Your task to perform on an android device: Search for sushi restaurants on Maps Image 0: 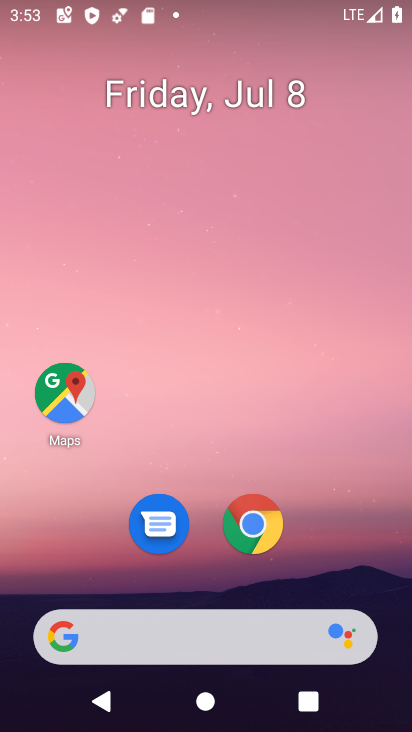
Step 0: drag from (314, 529) to (349, 89)
Your task to perform on an android device: Search for sushi restaurants on Maps Image 1: 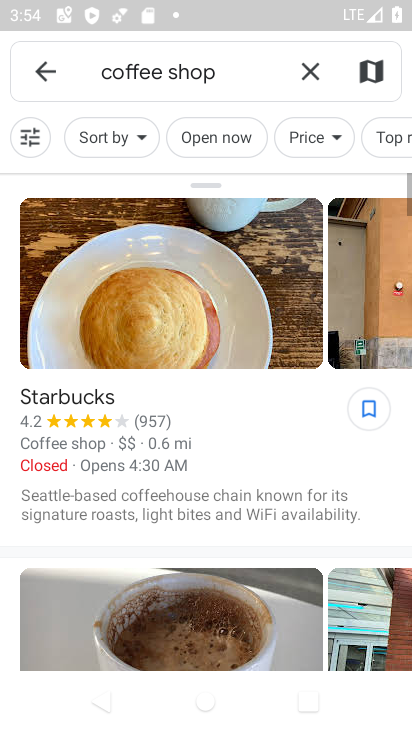
Step 1: press home button
Your task to perform on an android device: Search for sushi restaurants on Maps Image 2: 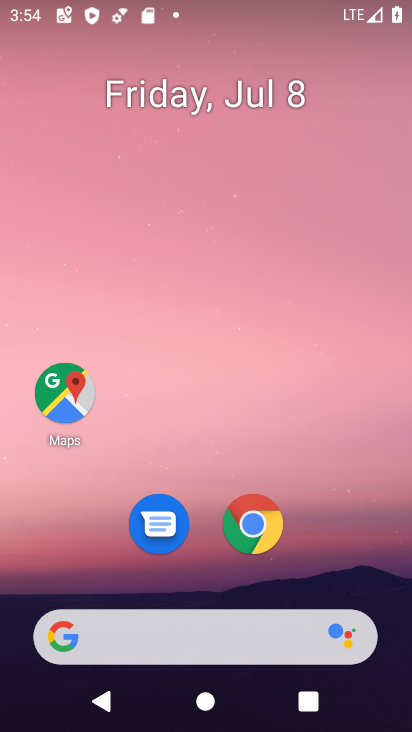
Step 2: click (69, 393)
Your task to perform on an android device: Search for sushi restaurants on Maps Image 3: 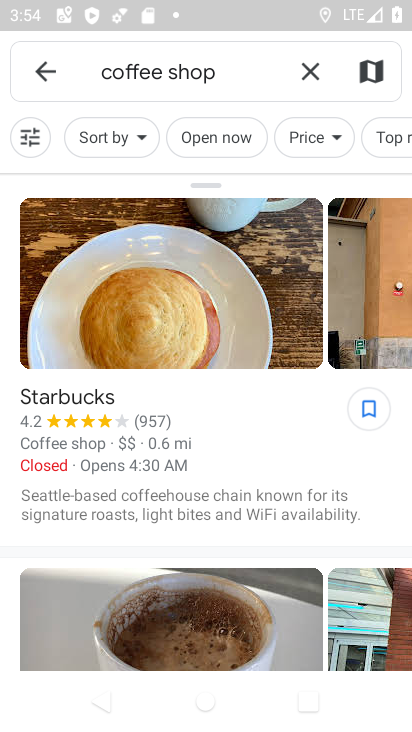
Step 3: click (312, 68)
Your task to perform on an android device: Search for sushi restaurants on Maps Image 4: 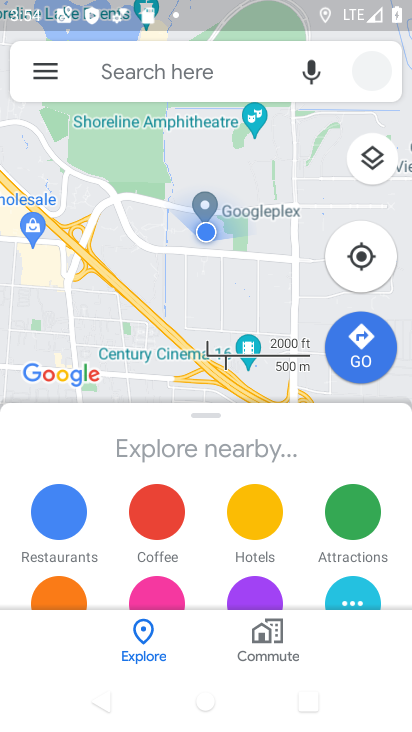
Step 4: click (197, 75)
Your task to perform on an android device: Search for sushi restaurants on Maps Image 5: 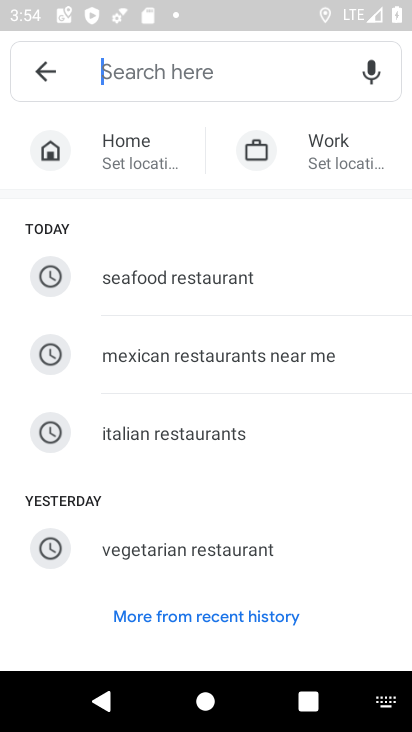
Step 5: type "sushi restaurants"
Your task to perform on an android device: Search for sushi restaurants on Maps Image 6: 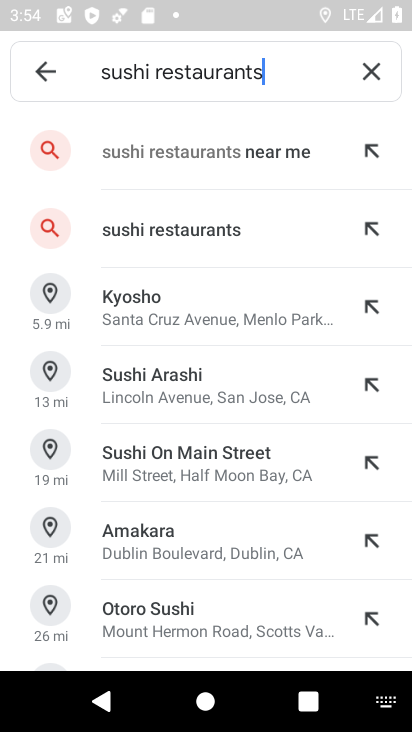
Step 6: click (228, 235)
Your task to perform on an android device: Search for sushi restaurants on Maps Image 7: 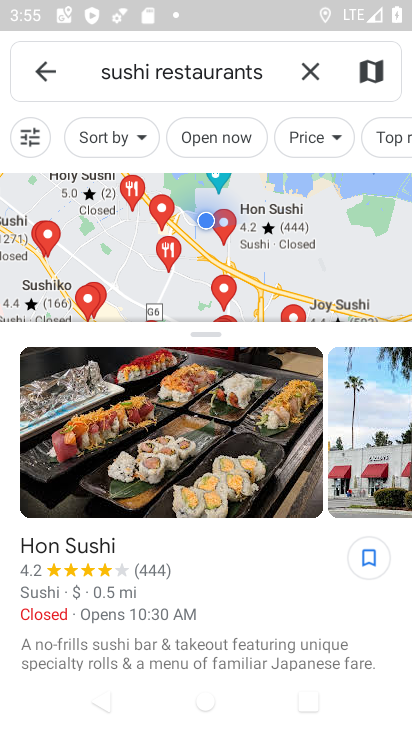
Step 7: task complete